Your task to perform on an android device: add a label to a message in the gmail app Image 0: 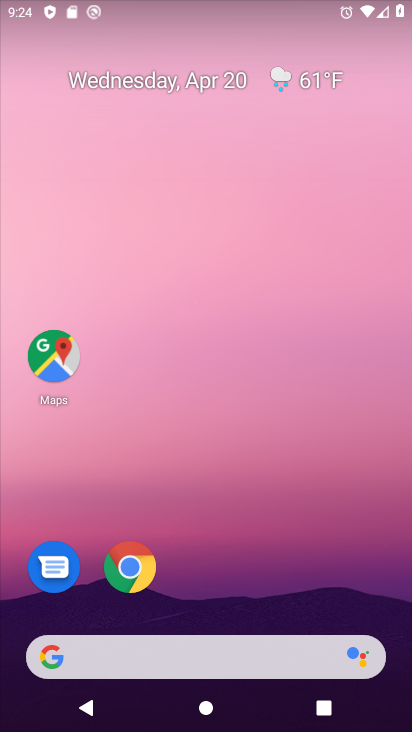
Step 0: drag from (218, 598) to (240, 81)
Your task to perform on an android device: add a label to a message in the gmail app Image 1: 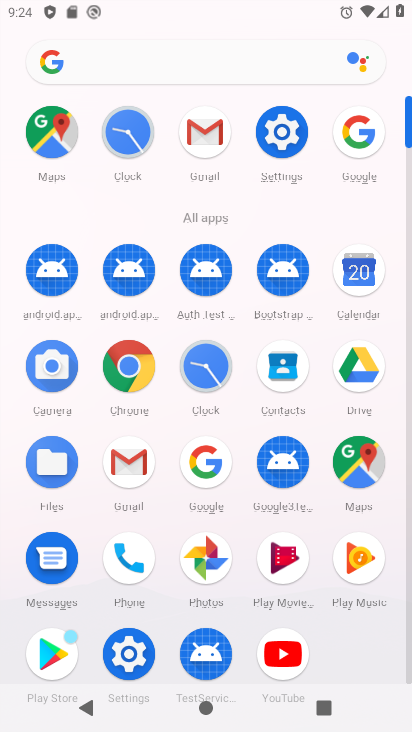
Step 1: click (208, 120)
Your task to perform on an android device: add a label to a message in the gmail app Image 2: 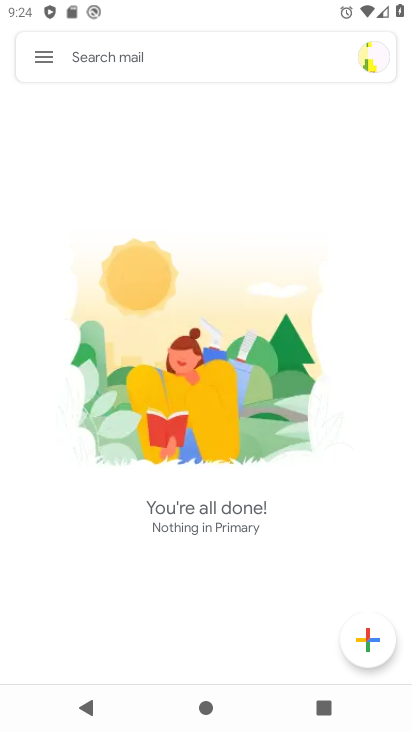
Step 2: click (36, 53)
Your task to perform on an android device: add a label to a message in the gmail app Image 3: 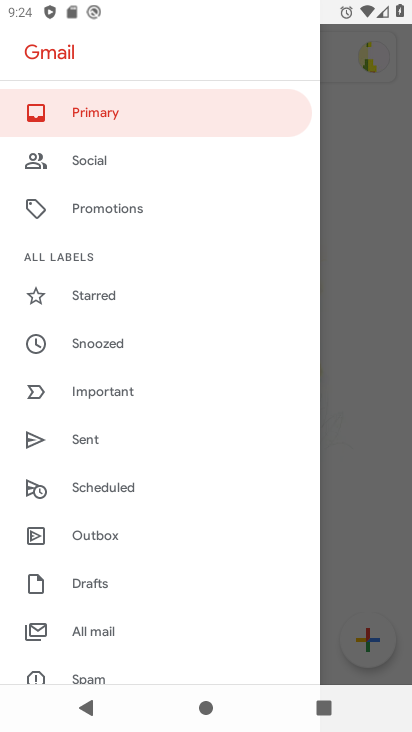
Step 3: click (105, 624)
Your task to perform on an android device: add a label to a message in the gmail app Image 4: 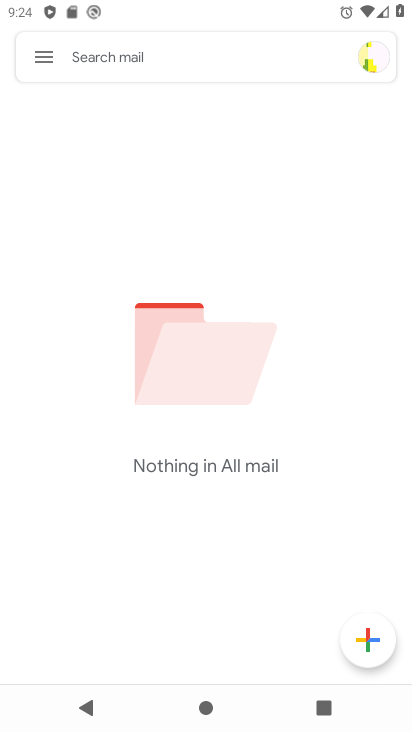
Step 4: click (37, 50)
Your task to perform on an android device: add a label to a message in the gmail app Image 5: 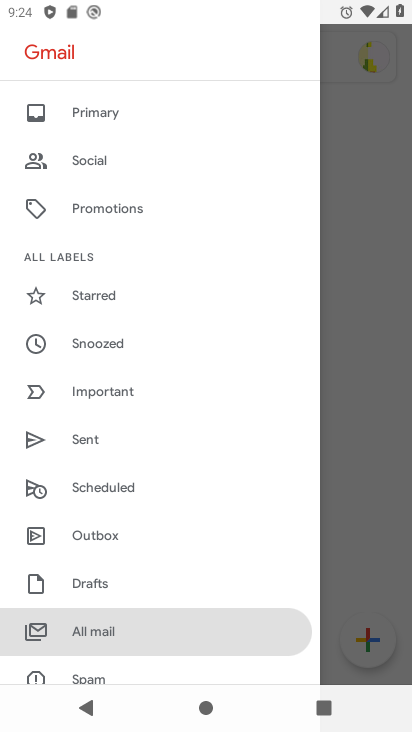
Step 5: drag from (137, 274) to (137, 521)
Your task to perform on an android device: add a label to a message in the gmail app Image 6: 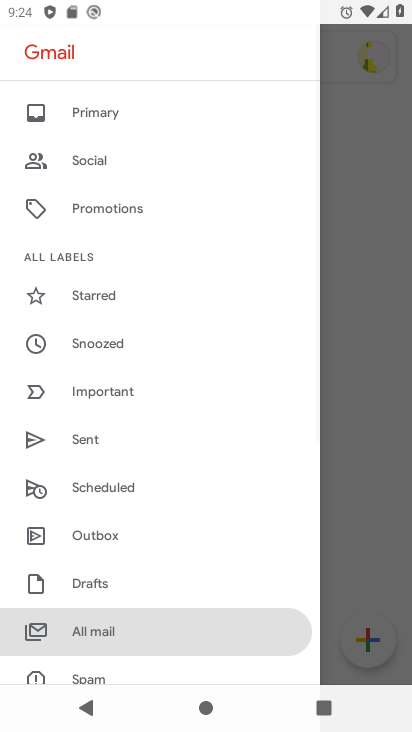
Step 6: click (126, 620)
Your task to perform on an android device: add a label to a message in the gmail app Image 7: 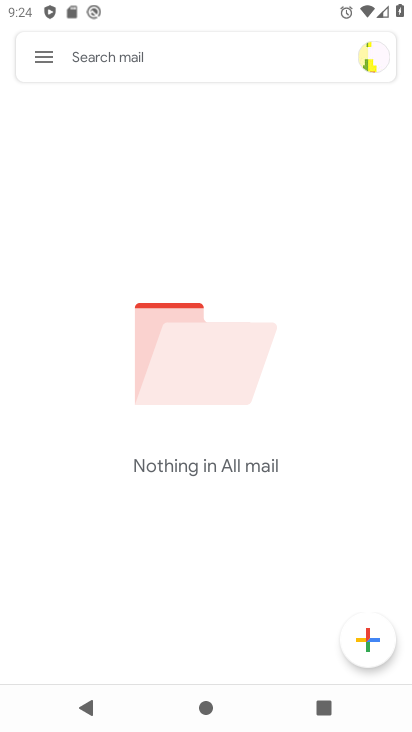
Step 7: task complete